Your task to perform on an android device: Show me popular videos on Youtube Image 0: 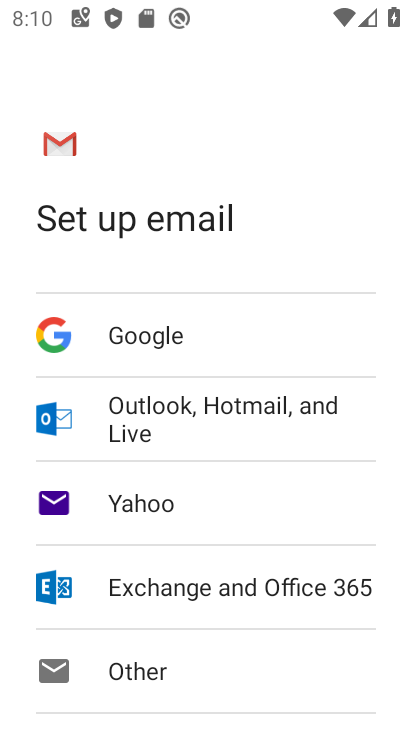
Step 0: press home button
Your task to perform on an android device: Show me popular videos on Youtube Image 1: 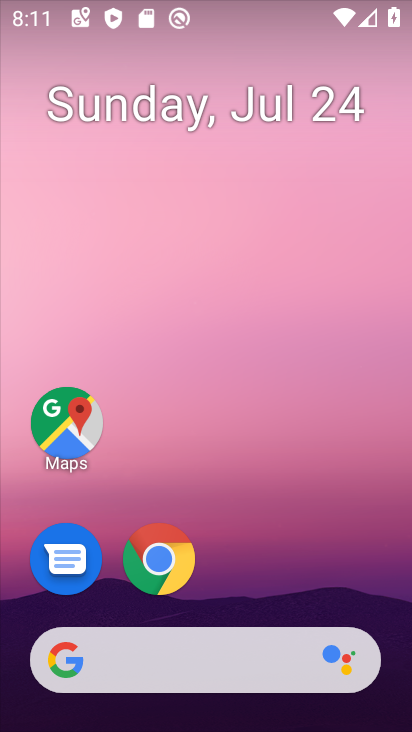
Step 1: drag from (360, 590) to (384, 129)
Your task to perform on an android device: Show me popular videos on Youtube Image 2: 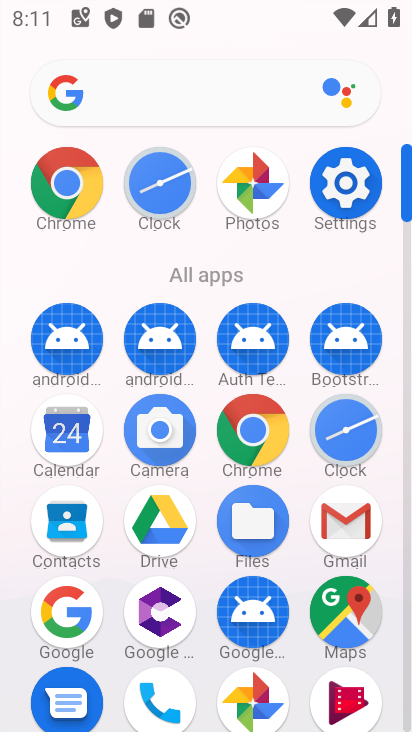
Step 2: drag from (407, 428) to (405, 326)
Your task to perform on an android device: Show me popular videos on Youtube Image 3: 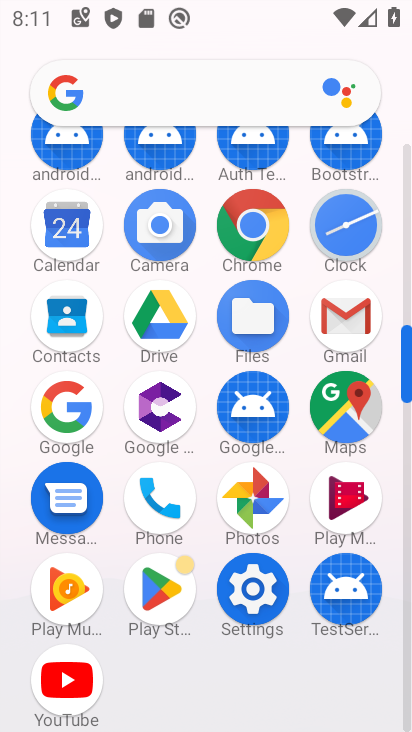
Step 3: click (73, 678)
Your task to perform on an android device: Show me popular videos on Youtube Image 4: 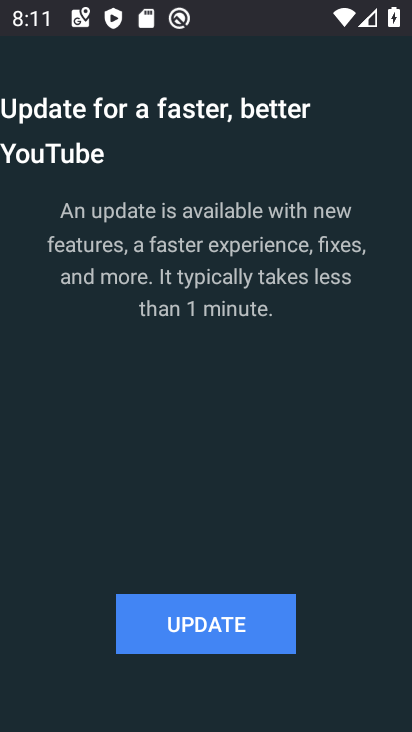
Step 4: click (223, 625)
Your task to perform on an android device: Show me popular videos on Youtube Image 5: 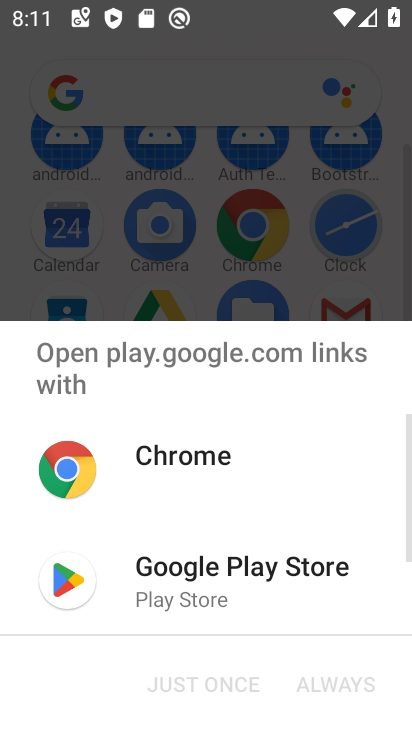
Step 5: click (177, 600)
Your task to perform on an android device: Show me popular videos on Youtube Image 6: 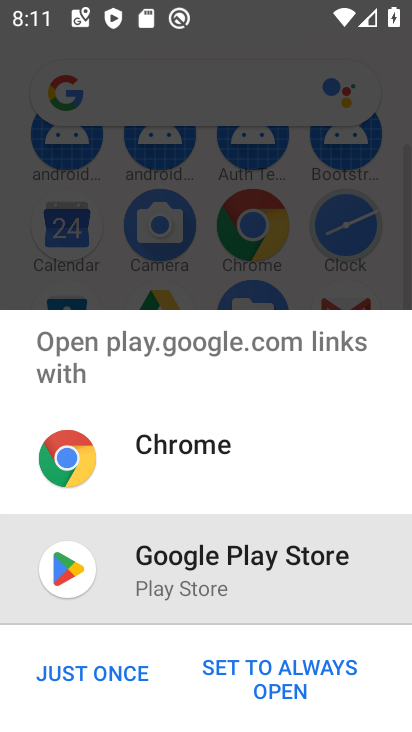
Step 6: click (118, 674)
Your task to perform on an android device: Show me popular videos on Youtube Image 7: 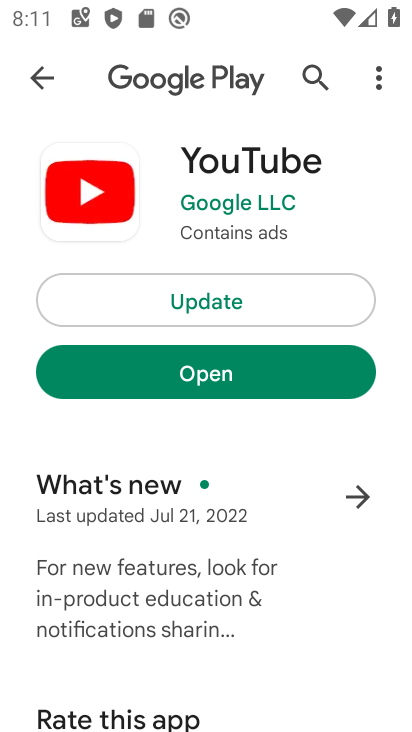
Step 7: click (239, 293)
Your task to perform on an android device: Show me popular videos on Youtube Image 8: 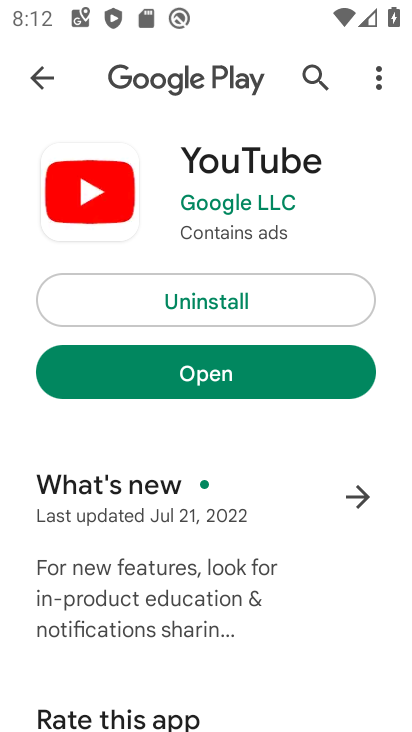
Step 8: click (316, 364)
Your task to perform on an android device: Show me popular videos on Youtube Image 9: 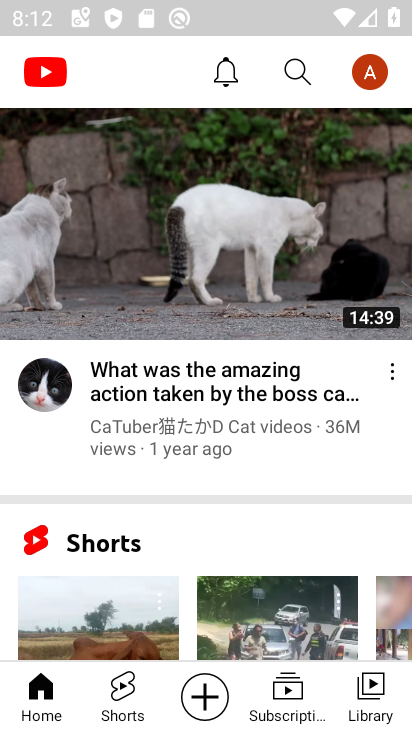
Step 9: task complete